Your task to perform on an android device: delete a single message in the gmail app Image 0: 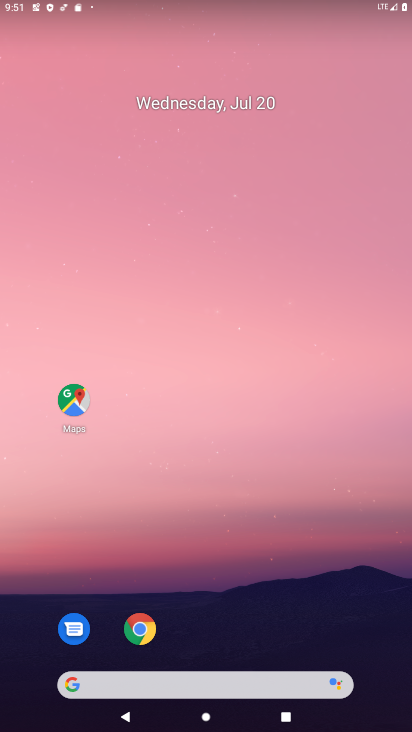
Step 0: press home button
Your task to perform on an android device: delete a single message in the gmail app Image 1: 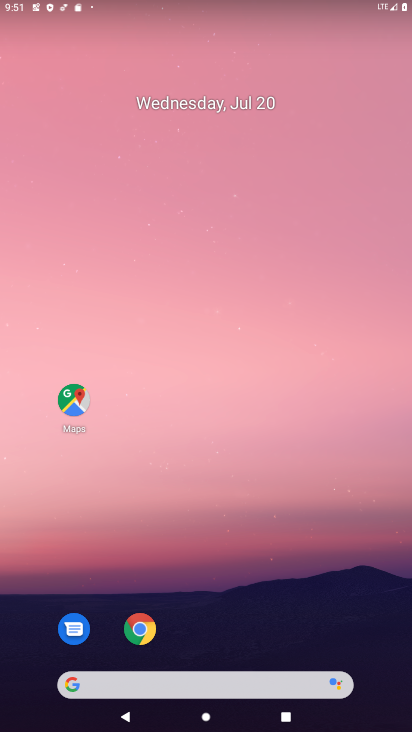
Step 1: drag from (260, 627) to (254, 246)
Your task to perform on an android device: delete a single message in the gmail app Image 2: 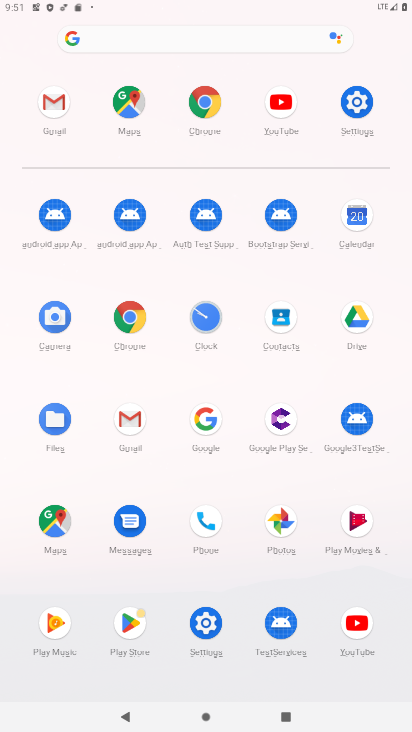
Step 2: click (64, 103)
Your task to perform on an android device: delete a single message in the gmail app Image 3: 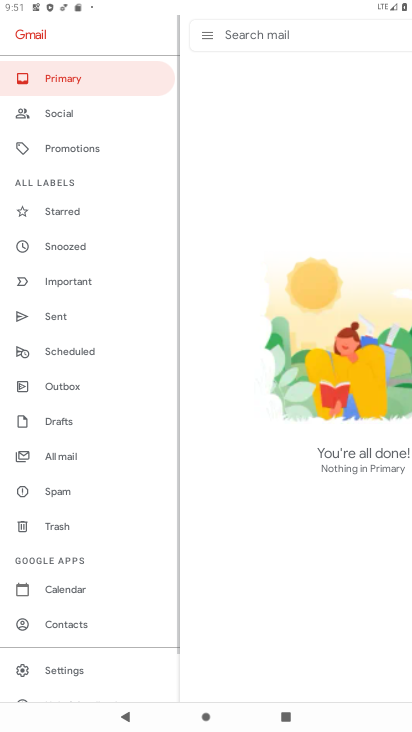
Step 3: click (271, 208)
Your task to perform on an android device: delete a single message in the gmail app Image 4: 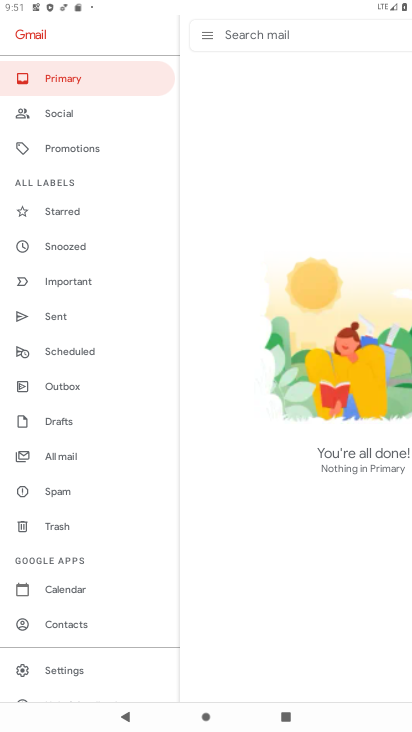
Step 4: click (204, 35)
Your task to perform on an android device: delete a single message in the gmail app Image 5: 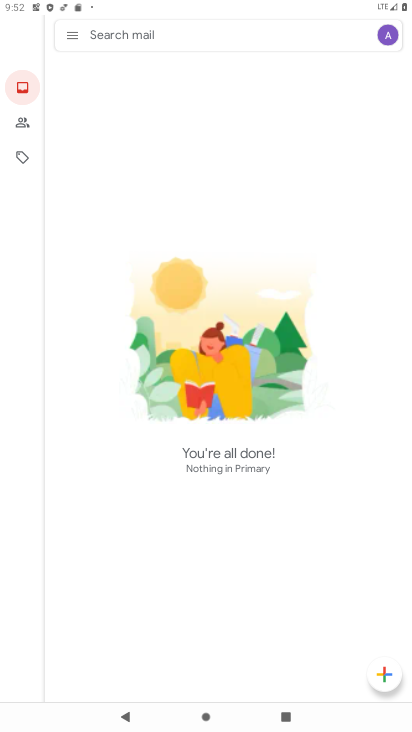
Step 5: task complete